Your task to perform on an android device: Search for 35 best books of all time Image 0: 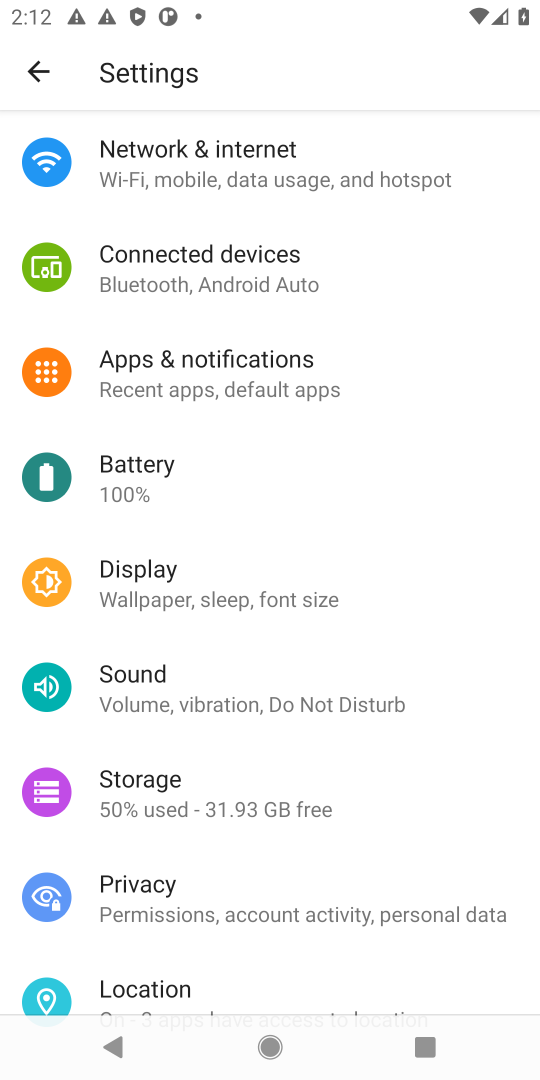
Step 0: press home button
Your task to perform on an android device: Search for 35 best books of all time Image 1: 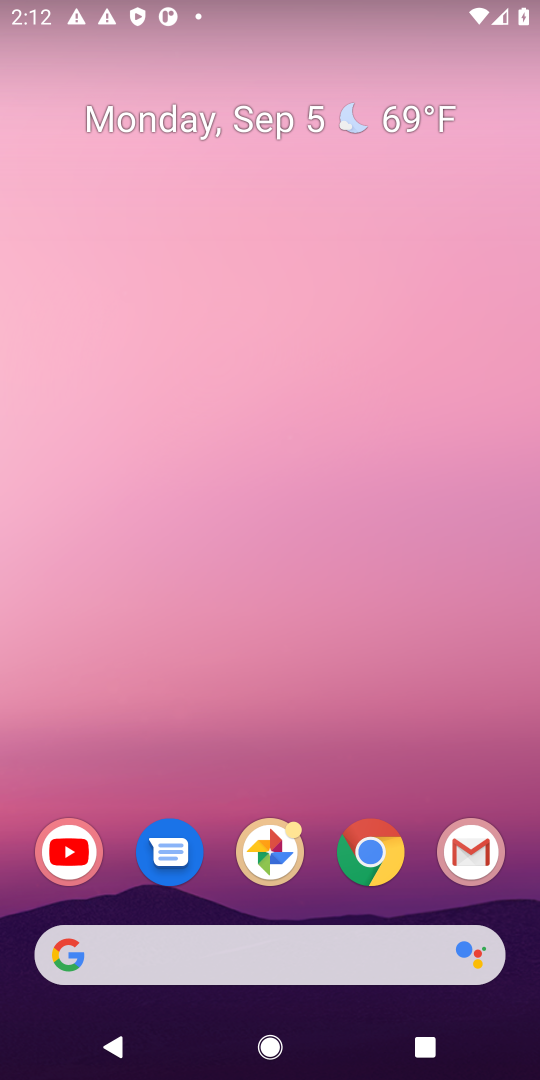
Step 1: click (377, 848)
Your task to perform on an android device: Search for 35 best books of all time Image 2: 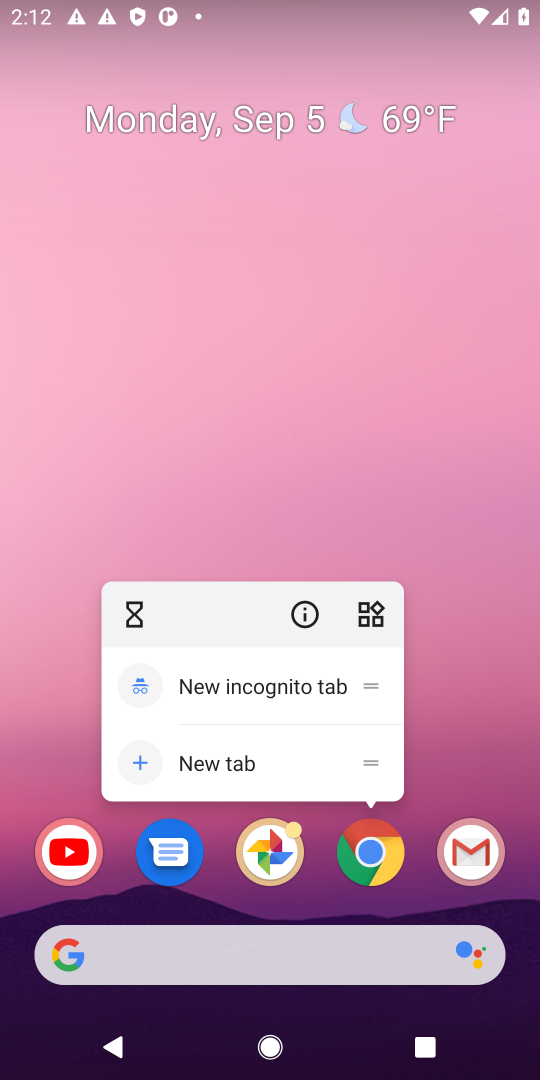
Step 2: click (371, 848)
Your task to perform on an android device: Search for 35 best books of all time Image 3: 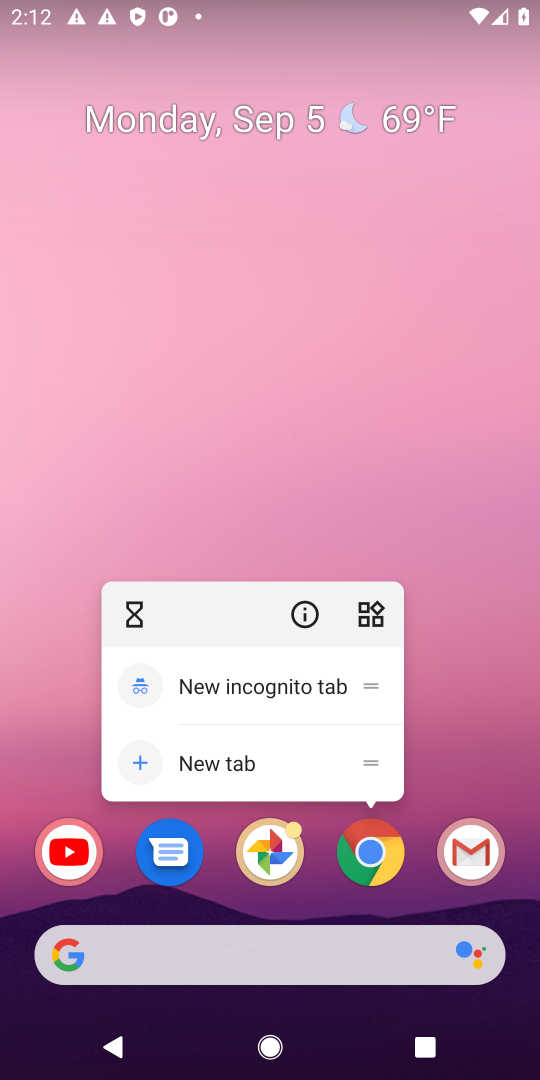
Step 3: click (369, 853)
Your task to perform on an android device: Search for 35 best books of all time Image 4: 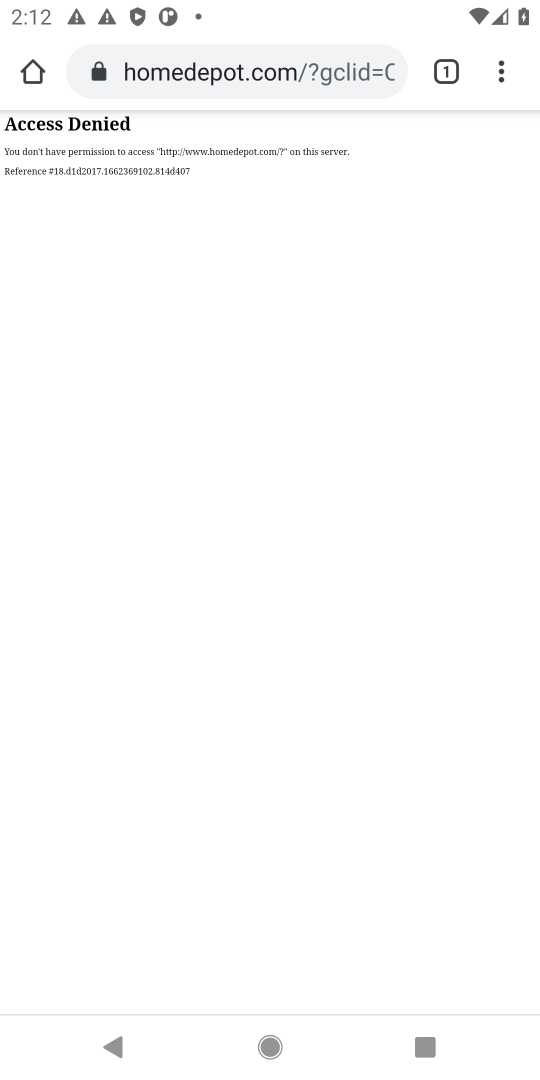
Step 4: click (284, 46)
Your task to perform on an android device: Search for 35 best books of all time Image 5: 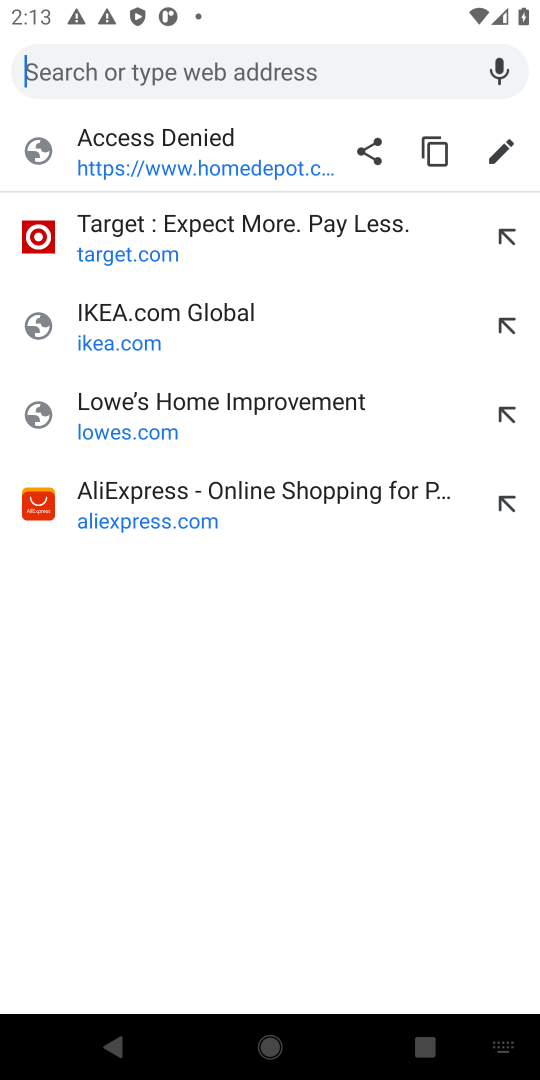
Step 5: type " 35 best books of all time"
Your task to perform on an android device: Search for 35 best books of all time Image 6: 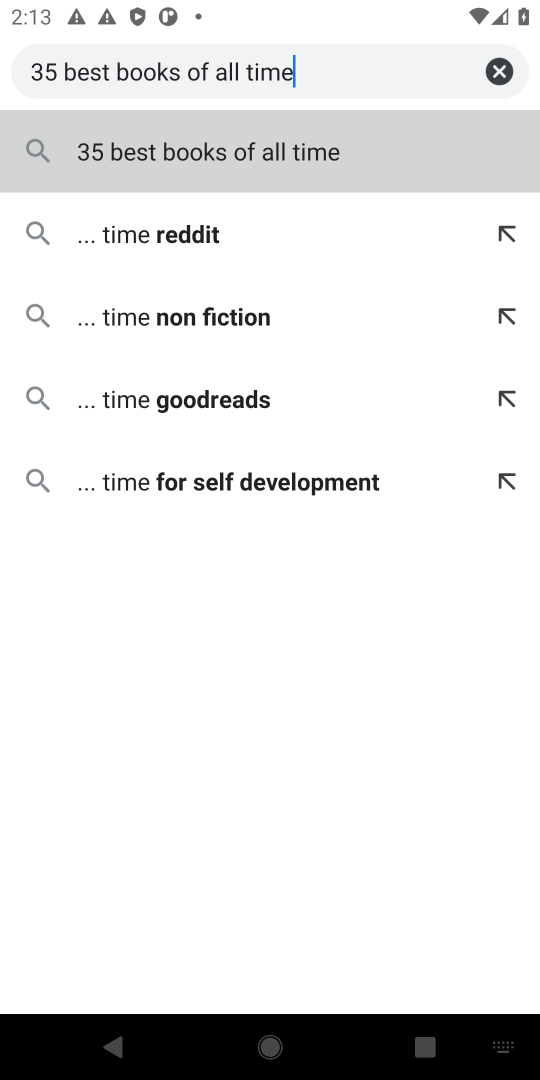
Step 6: click (130, 141)
Your task to perform on an android device: Search for 35 best books of all time Image 7: 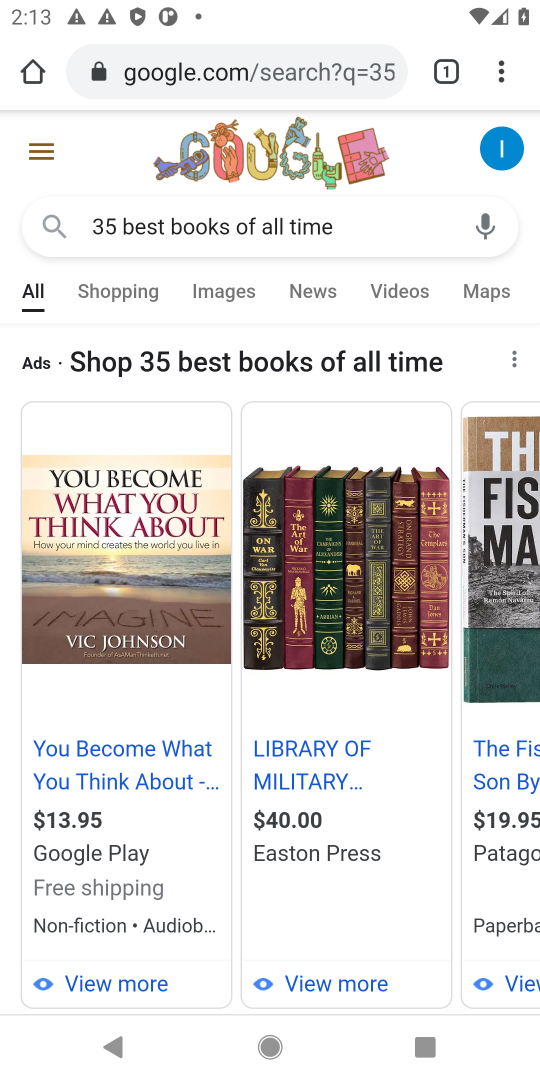
Step 7: task complete